Your task to perform on an android device: Do I have any events tomorrow? Image 0: 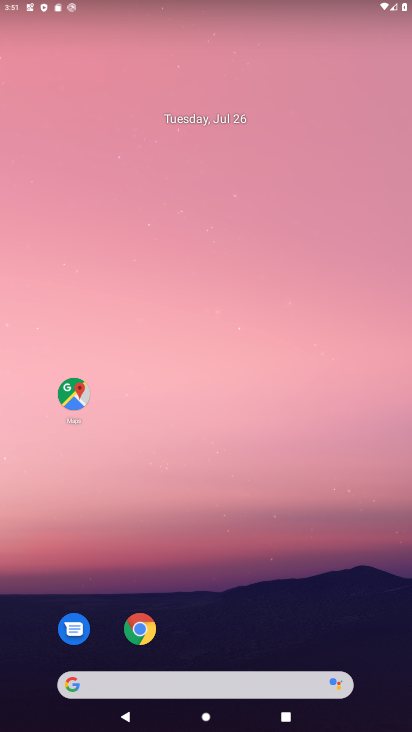
Step 0: drag from (255, 615) to (204, 281)
Your task to perform on an android device: Do I have any events tomorrow? Image 1: 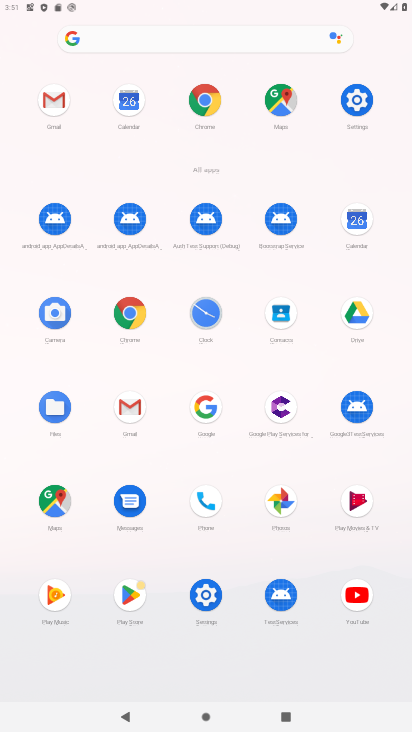
Step 1: click (355, 228)
Your task to perform on an android device: Do I have any events tomorrow? Image 2: 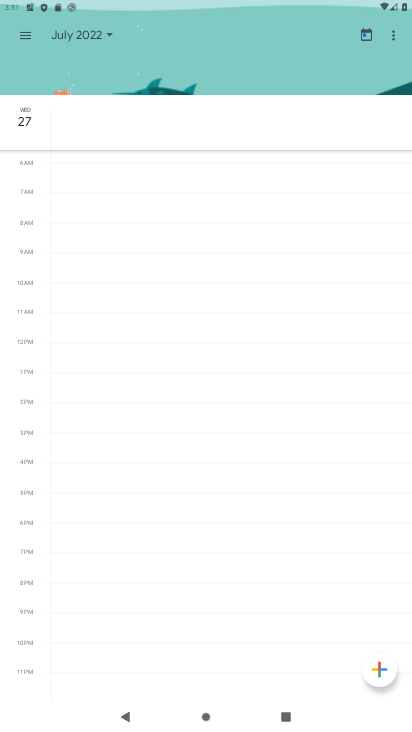
Step 2: task complete